Your task to perform on an android device: open sync settings in chrome Image 0: 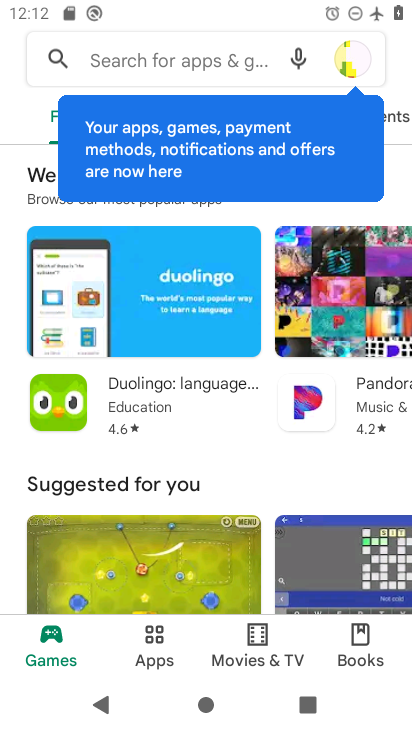
Step 0: press home button
Your task to perform on an android device: open sync settings in chrome Image 1: 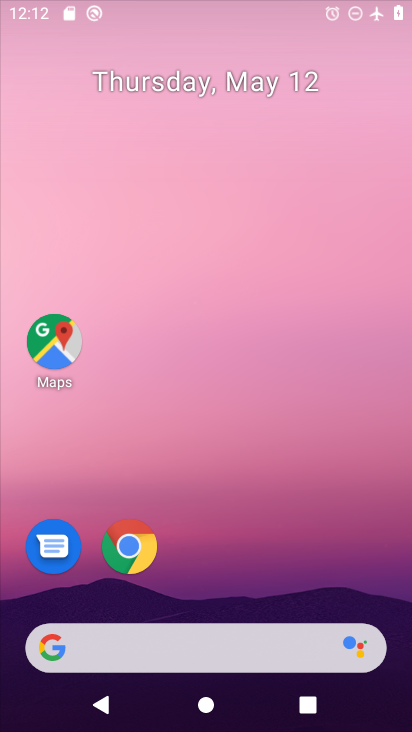
Step 1: drag from (392, 648) to (308, 72)
Your task to perform on an android device: open sync settings in chrome Image 2: 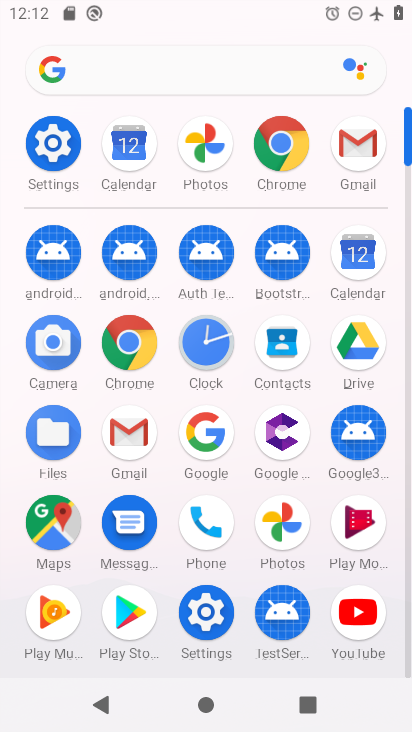
Step 2: click (132, 346)
Your task to perform on an android device: open sync settings in chrome Image 3: 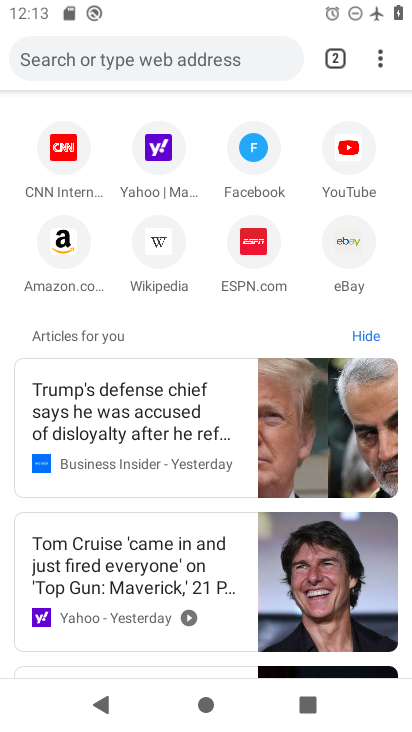
Step 3: click (377, 52)
Your task to perform on an android device: open sync settings in chrome Image 4: 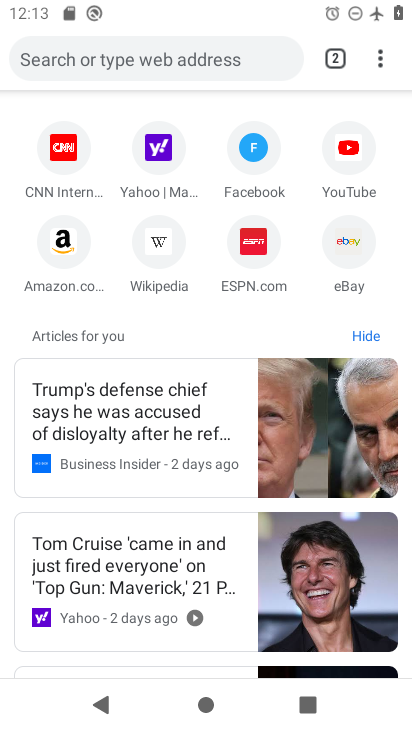
Step 4: click (377, 52)
Your task to perform on an android device: open sync settings in chrome Image 5: 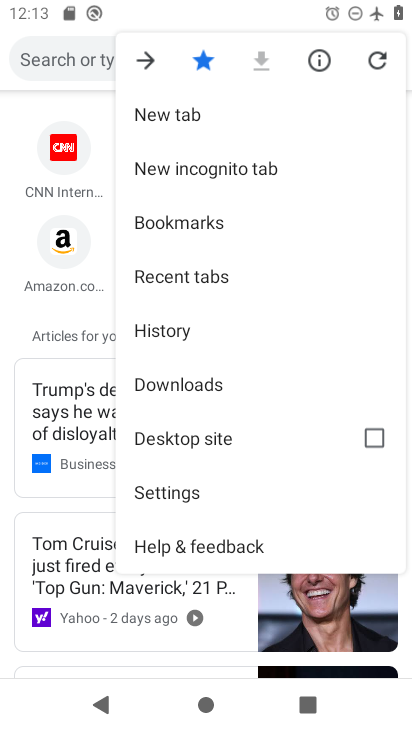
Step 5: click (208, 489)
Your task to perform on an android device: open sync settings in chrome Image 6: 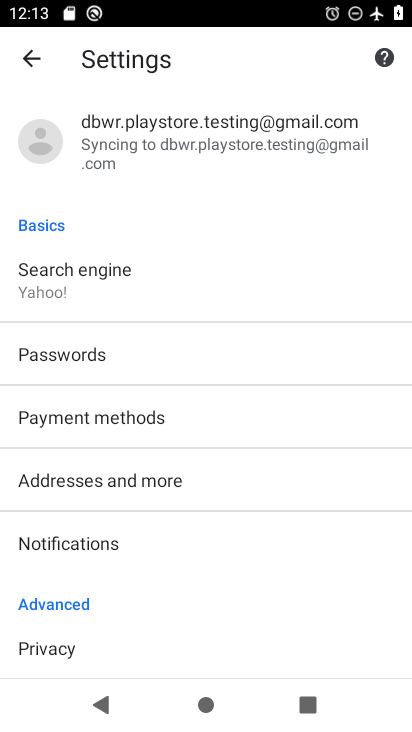
Step 6: drag from (141, 615) to (220, 296)
Your task to perform on an android device: open sync settings in chrome Image 7: 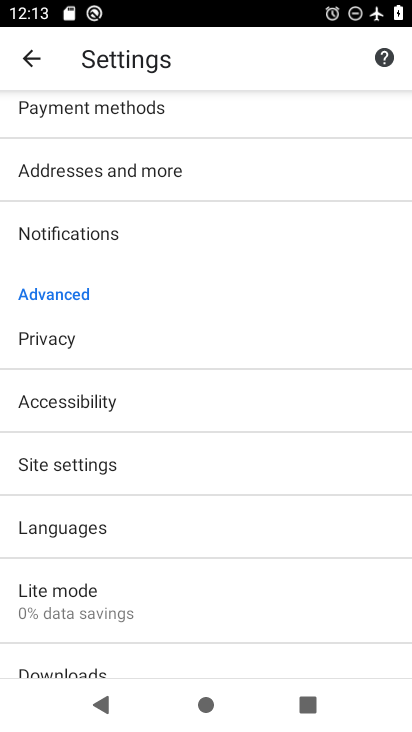
Step 7: click (103, 468)
Your task to perform on an android device: open sync settings in chrome Image 8: 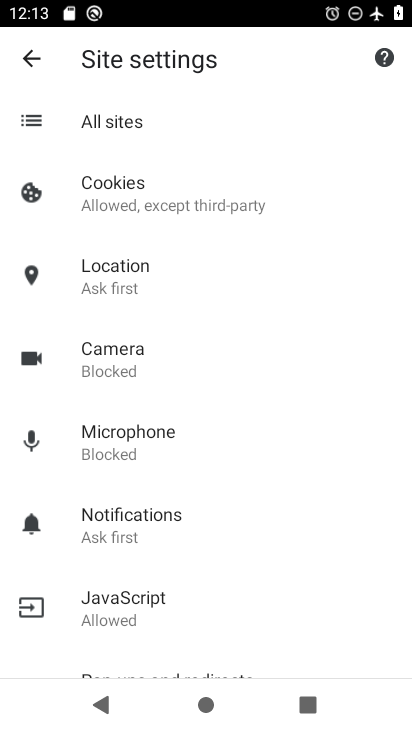
Step 8: drag from (170, 634) to (239, 226)
Your task to perform on an android device: open sync settings in chrome Image 9: 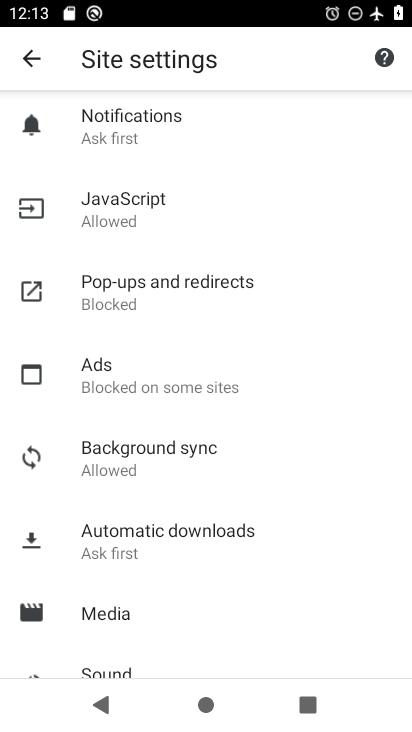
Step 9: click (173, 467)
Your task to perform on an android device: open sync settings in chrome Image 10: 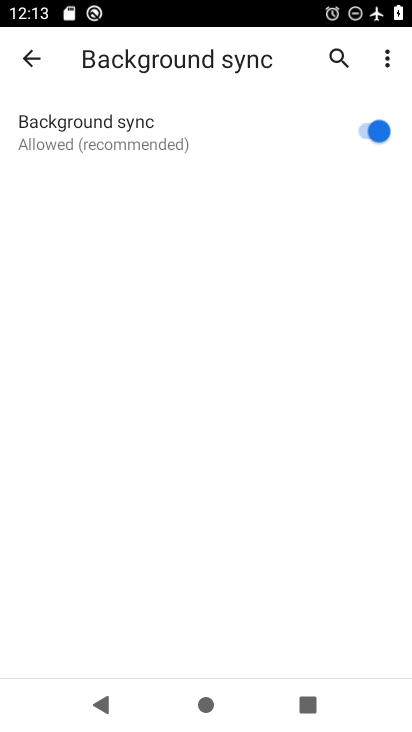
Step 10: task complete